Your task to perform on an android device: create a new album in the google photos Image 0: 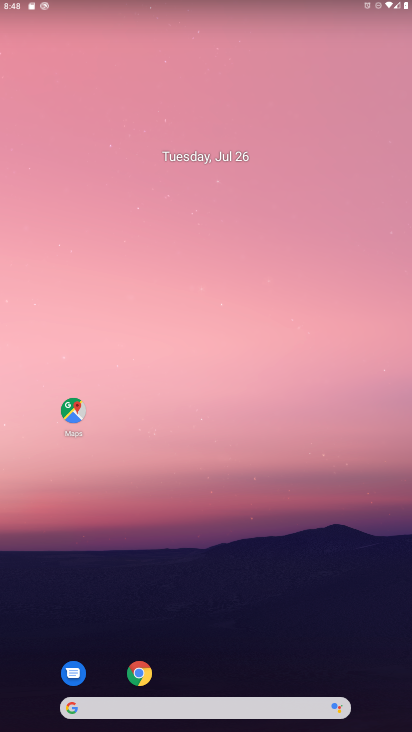
Step 0: drag from (346, 635) to (116, 6)
Your task to perform on an android device: create a new album in the google photos Image 1: 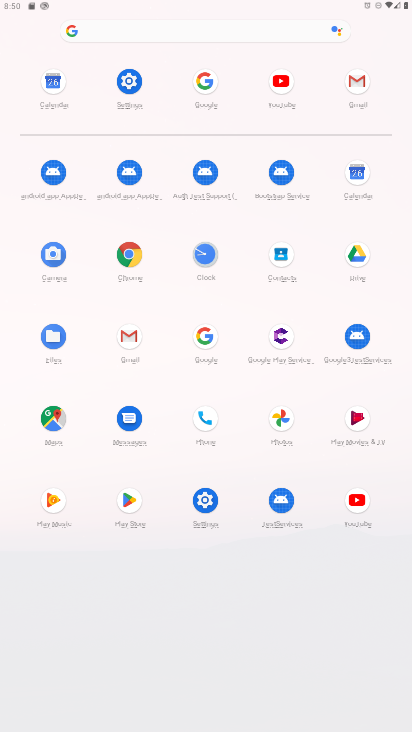
Step 1: click (282, 408)
Your task to perform on an android device: create a new album in the google photos Image 2: 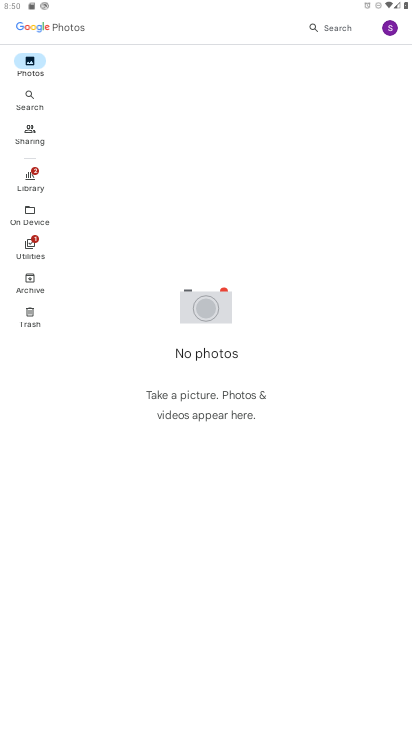
Step 2: task complete